Your task to perform on an android device: Open network settings Image 0: 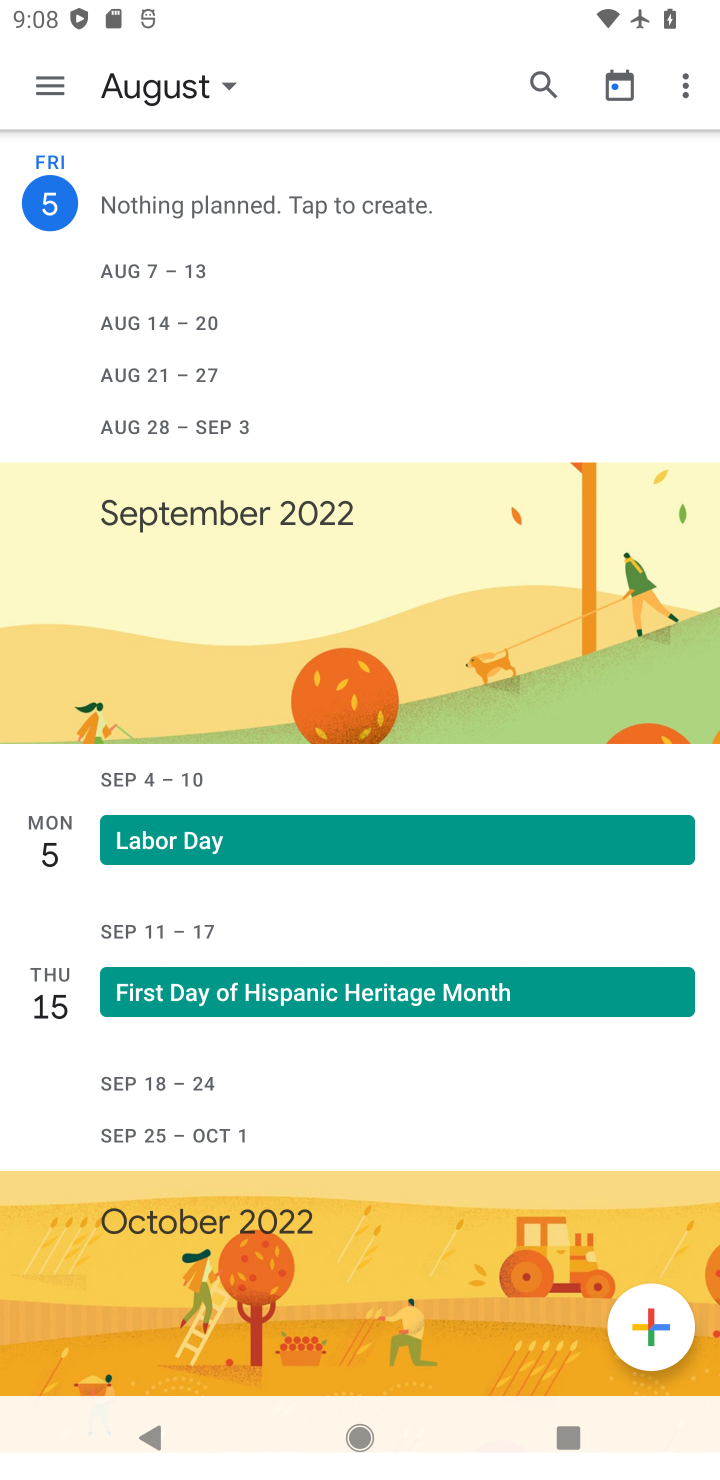
Step 0: task complete